Your task to perform on an android device: Open Google Maps Image 0: 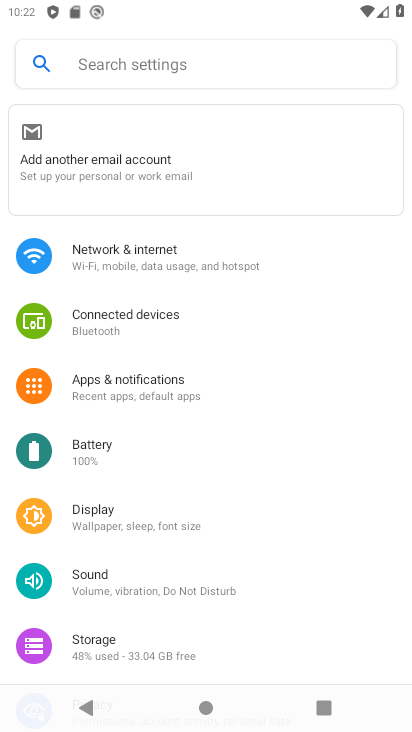
Step 0: press home button
Your task to perform on an android device: Open Google Maps Image 1: 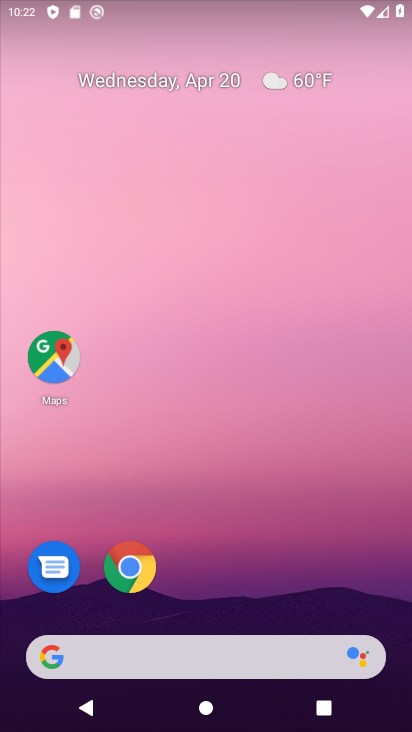
Step 1: click (56, 344)
Your task to perform on an android device: Open Google Maps Image 2: 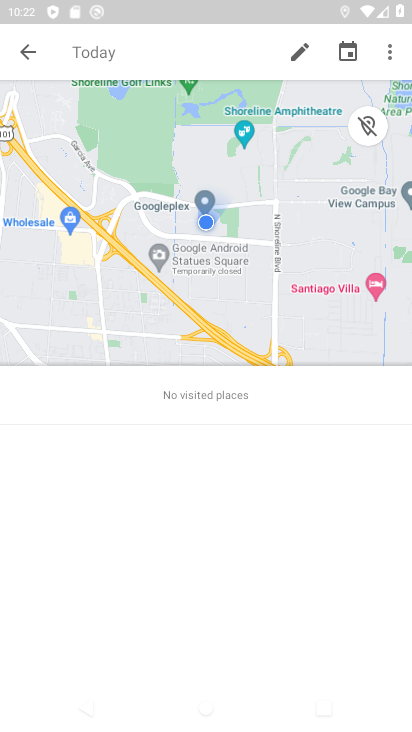
Step 2: task complete